Your task to perform on an android device: allow notifications from all sites in the chrome app Image 0: 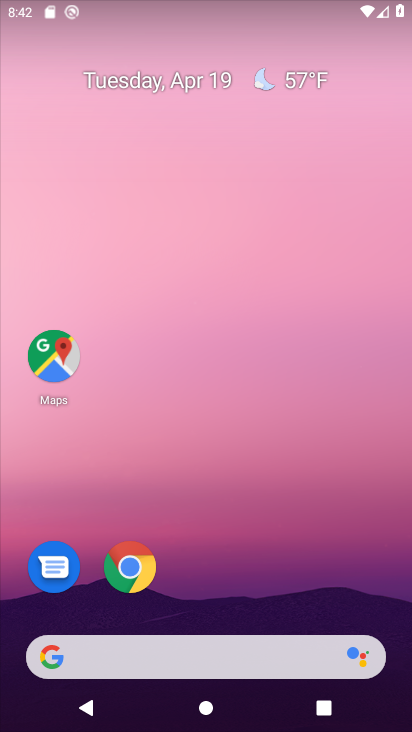
Step 0: drag from (277, 586) to (319, 114)
Your task to perform on an android device: allow notifications from all sites in the chrome app Image 1: 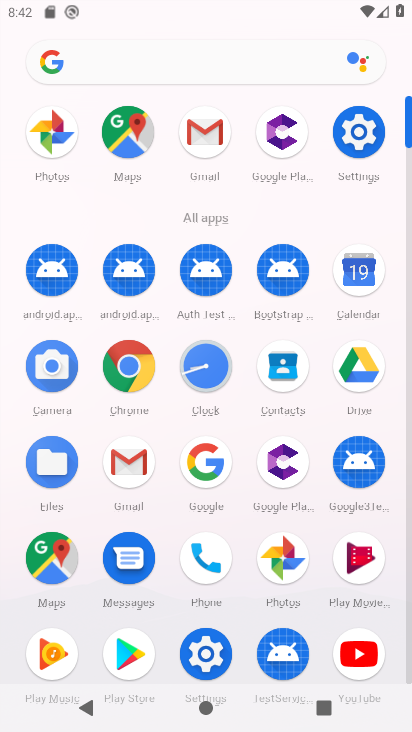
Step 1: click (136, 363)
Your task to perform on an android device: allow notifications from all sites in the chrome app Image 2: 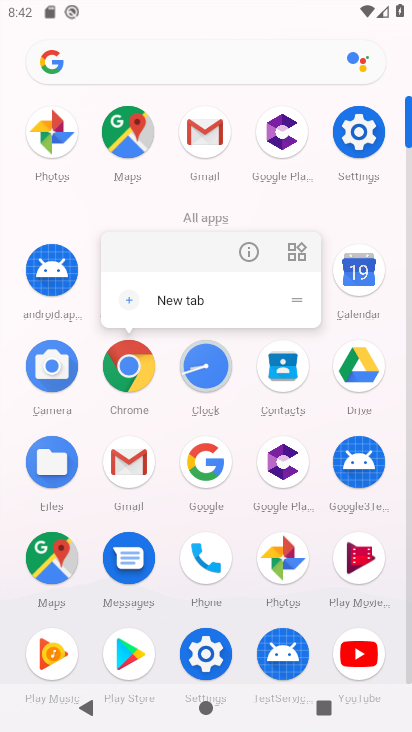
Step 2: click (125, 385)
Your task to perform on an android device: allow notifications from all sites in the chrome app Image 3: 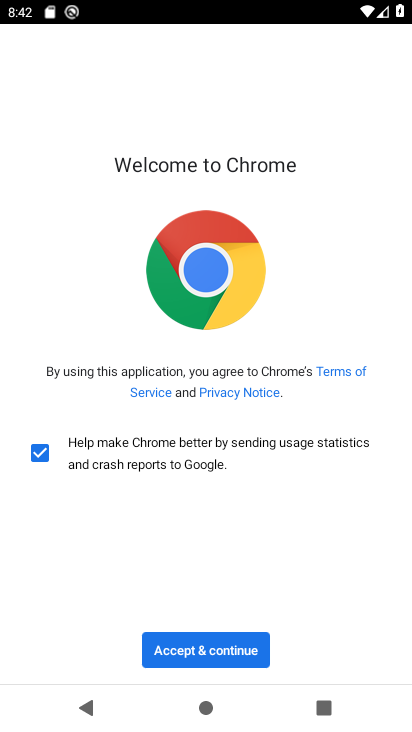
Step 3: click (173, 655)
Your task to perform on an android device: allow notifications from all sites in the chrome app Image 4: 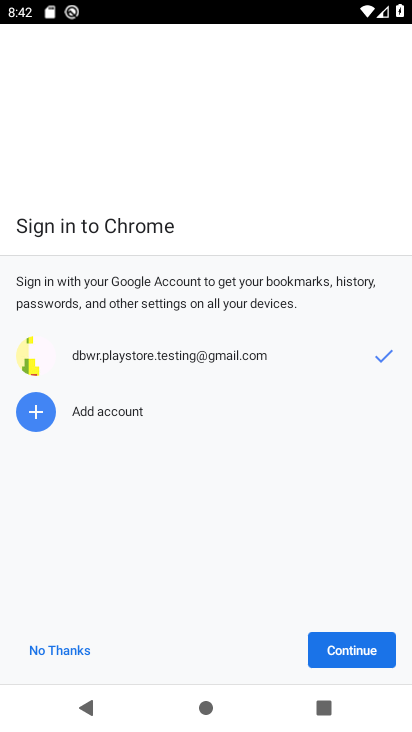
Step 4: click (60, 654)
Your task to perform on an android device: allow notifications from all sites in the chrome app Image 5: 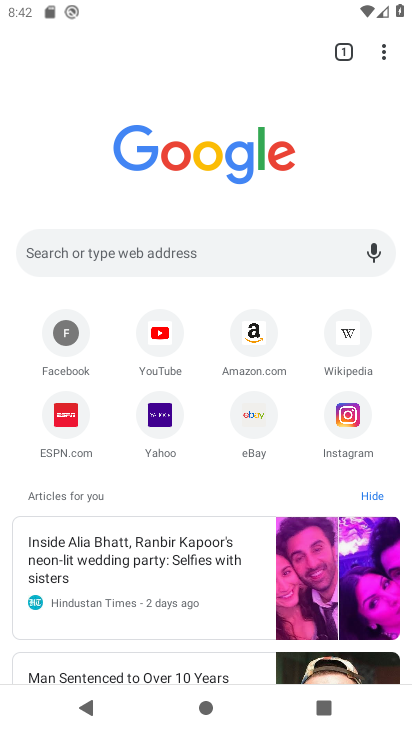
Step 5: click (366, 44)
Your task to perform on an android device: allow notifications from all sites in the chrome app Image 6: 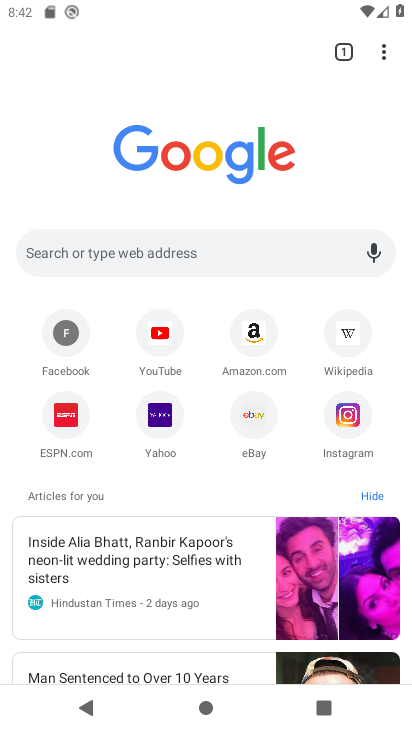
Step 6: drag from (398, 56) to (183, 434)
Your task to perform on an android device: allow notifications from all sites in the chrome app Image 7: 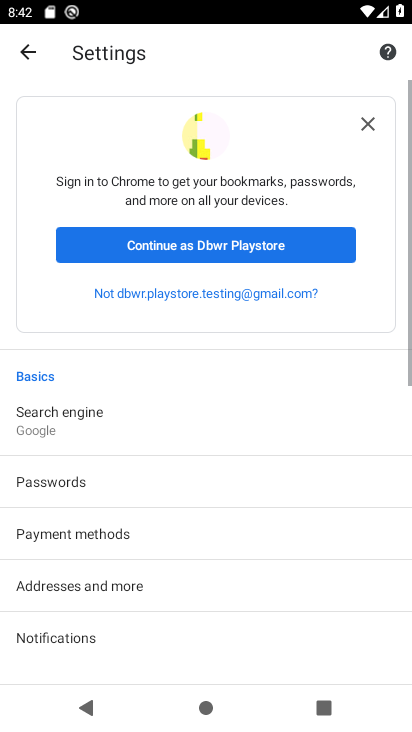
Step 7: drag from (152, 657) to (188, 371)
Your task to perform on an android device: allow notifications from all sites in the chrome app Image 8: 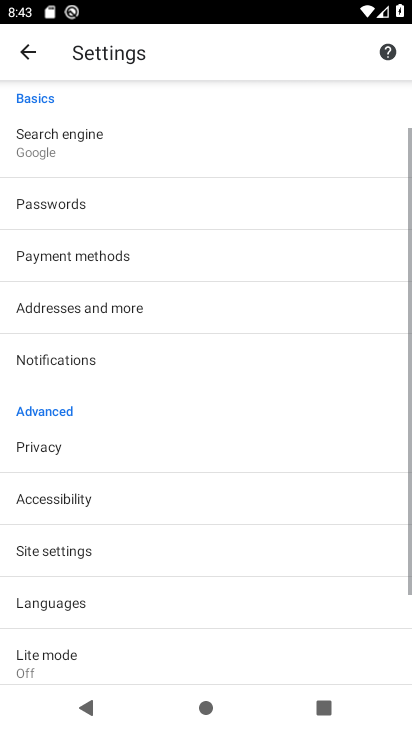
Step 8: drag from (178, 607) to (216, 329)
Your task to perform on an android device: allow notifications from all sites in the chrome app Image 9: 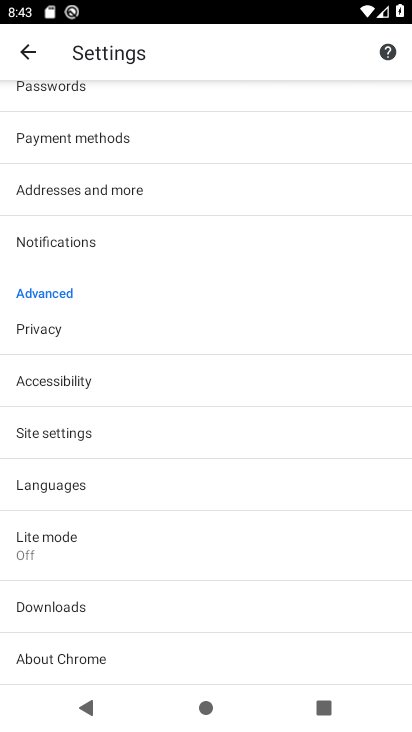
Step 9: click (54, 434)
Your task to perform on an android device: allow notifications from all sites in the chrome app Image 10: 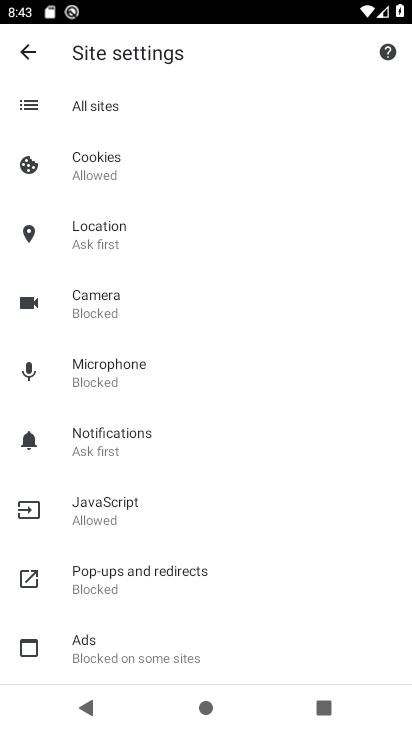
Step 10: click (124, 436)
Your task to perform on an android device: allow notifications from all sites in the chrome app Image 11: 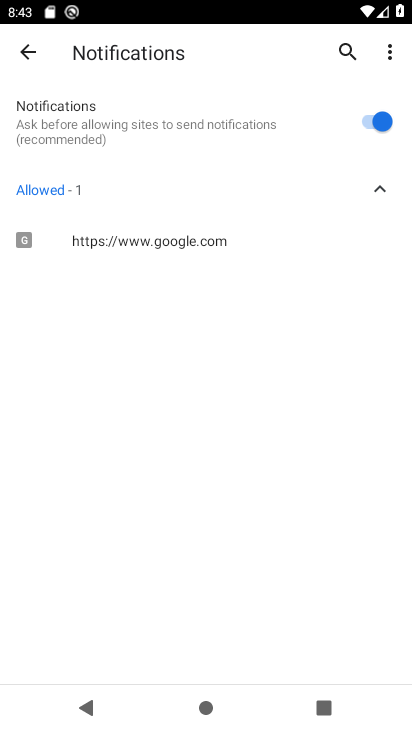
Step 11: click (365, 121)
Your task to perform on an android device: allow notifications from all sites in the chrome app Image 12: 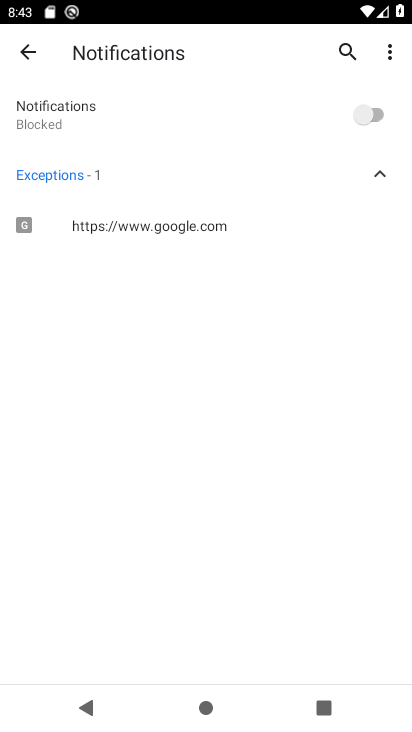
Step 12: task complete